Your task to perform on an android device: find which apps use the phone's location Image 0: 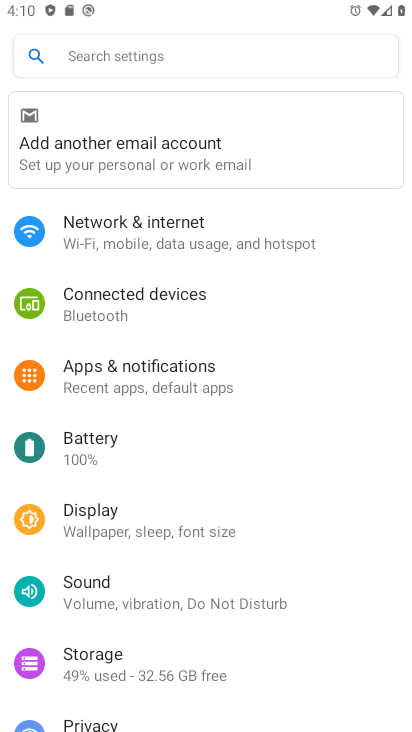
Step 0: drag from (99, 641) to (103, 252)
Your task to perform on an android device: find which apps use the phone's location Image 1: 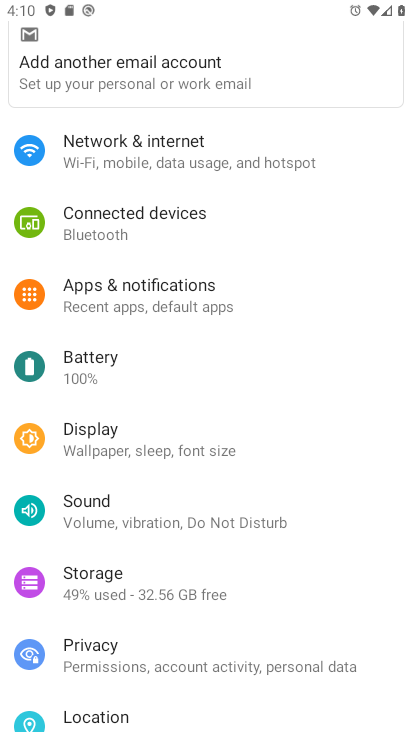
Step 1: click (105, 718)
Your task to perform on an android device: find which apps use the phone's location Image 2: 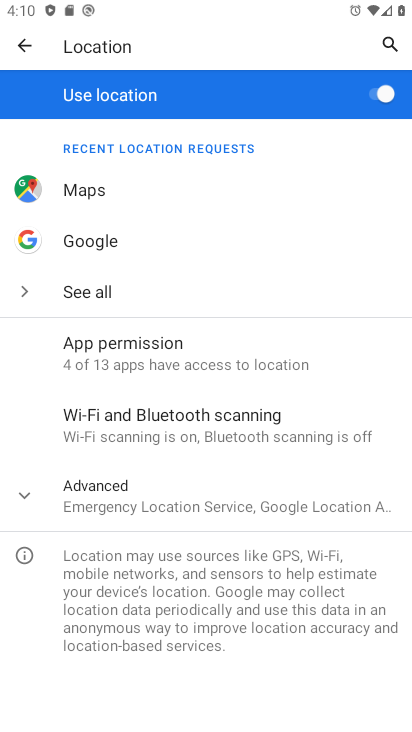
Step 2: click (160, 495)
Your task to perform on an android device: find which apps use the phone's location Image 3: 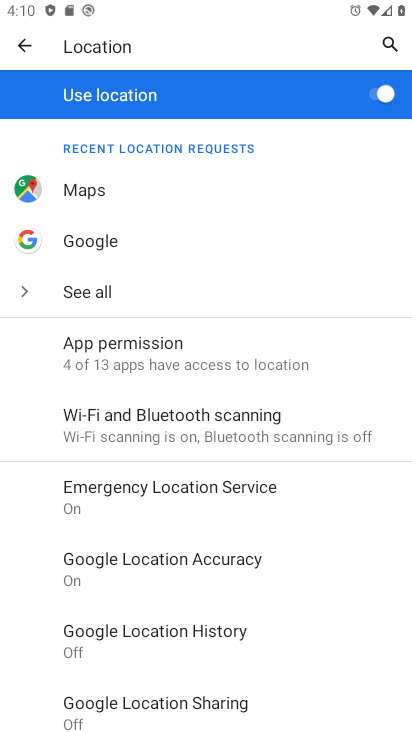
Step 3: click (113, 345)
Your task to perform on an android device: find which apps use the phone's location Image 4: 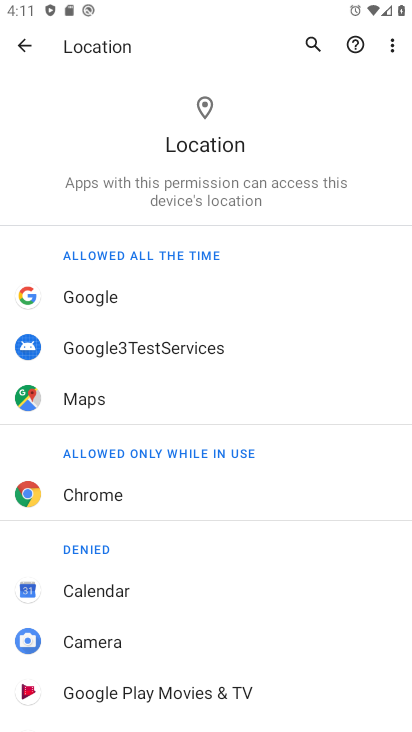
Step 4: task complete